Your task to perform on an android device: remove spam from my inbox in the gmail app Image 0: 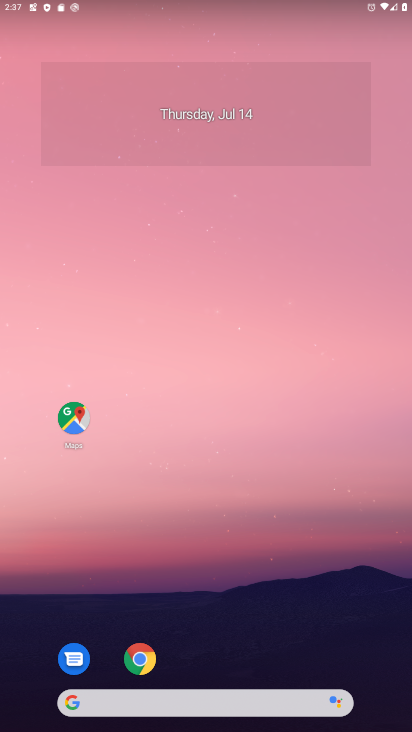
Step 0: drag from (273, 669) to (224, 30)
Your task to perform on an android device: remove spam from my inbox in the gmail app Image 1: 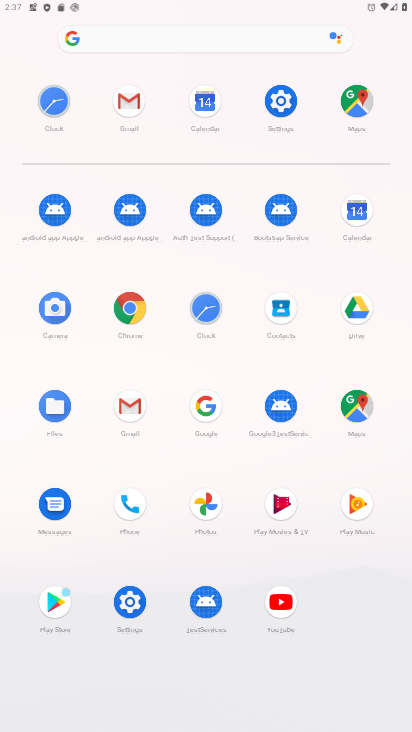
Step 1: click (119, 90)
Your task to perform on an android device: remove spam from my inbox in the gmail app Image 2: 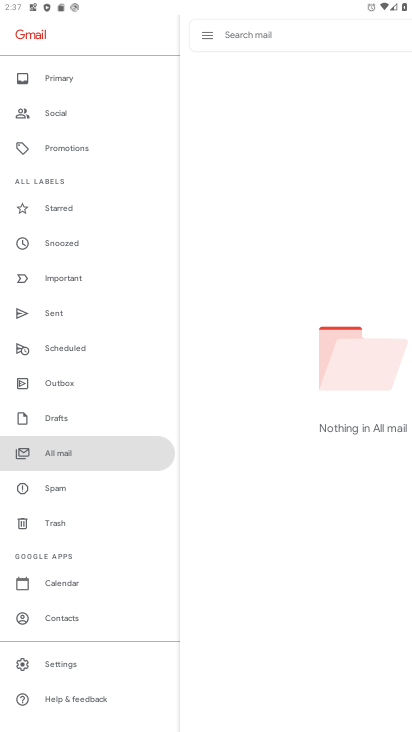
Step 2: click (46, 489)
Your task to perform on an android device: remove spam from my inbox in the gmail app Image 3: 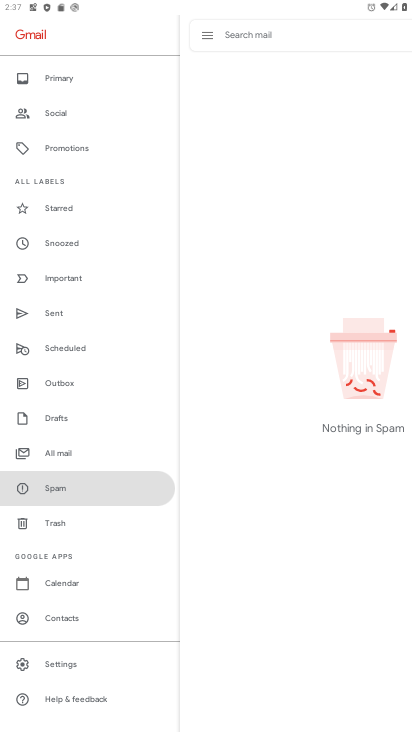
Step 3: task complete